Your task to perform on an android device: change notifications settings Image 0: 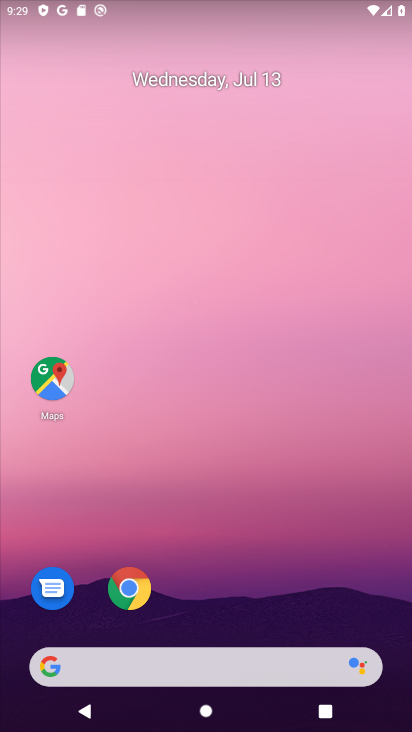
Step 0: drag from (270, 597) to (294, 141)
Your task to perform on an android device: change notifications settings Image 1: 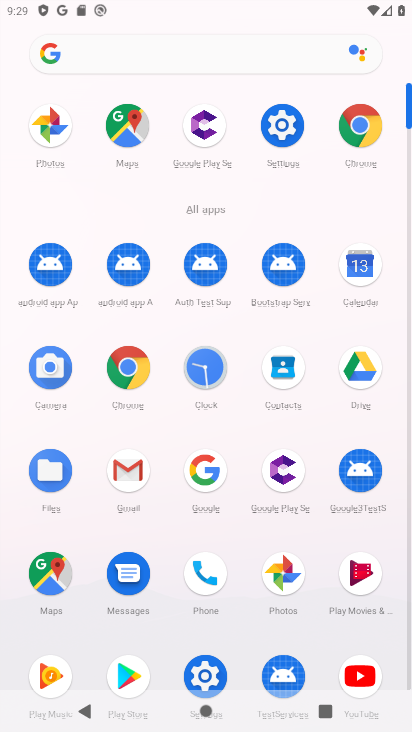
Step 1: click (279, 124)
Your task to perform on an android device: change notifications settings Image 2: 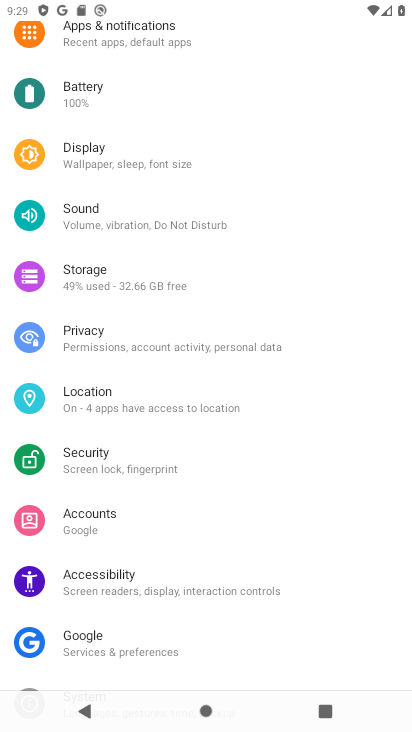
Step 2: click (135, 32)
Your task to perform on an android device: change notifications settings Image 3: 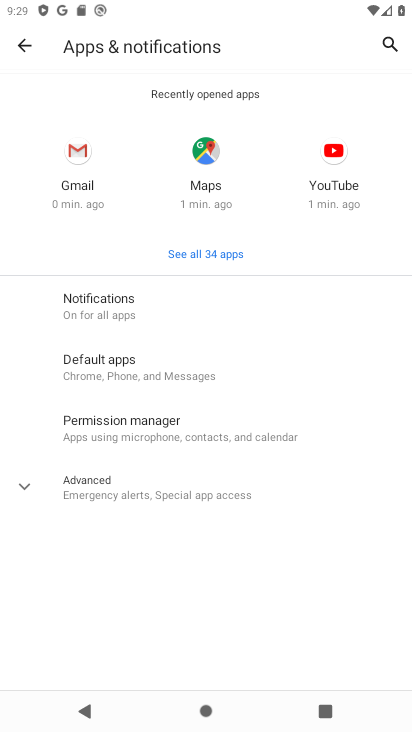
Step 3: click (140, 317)
Your task to perform on an android device: change notifications settings Image 4: 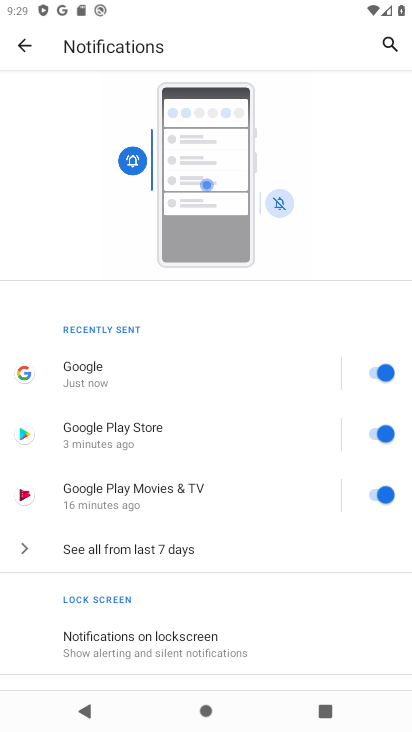
Step 4: task complete